Your task to perform on an android device: visit the assistant section in the google photos Image 0: 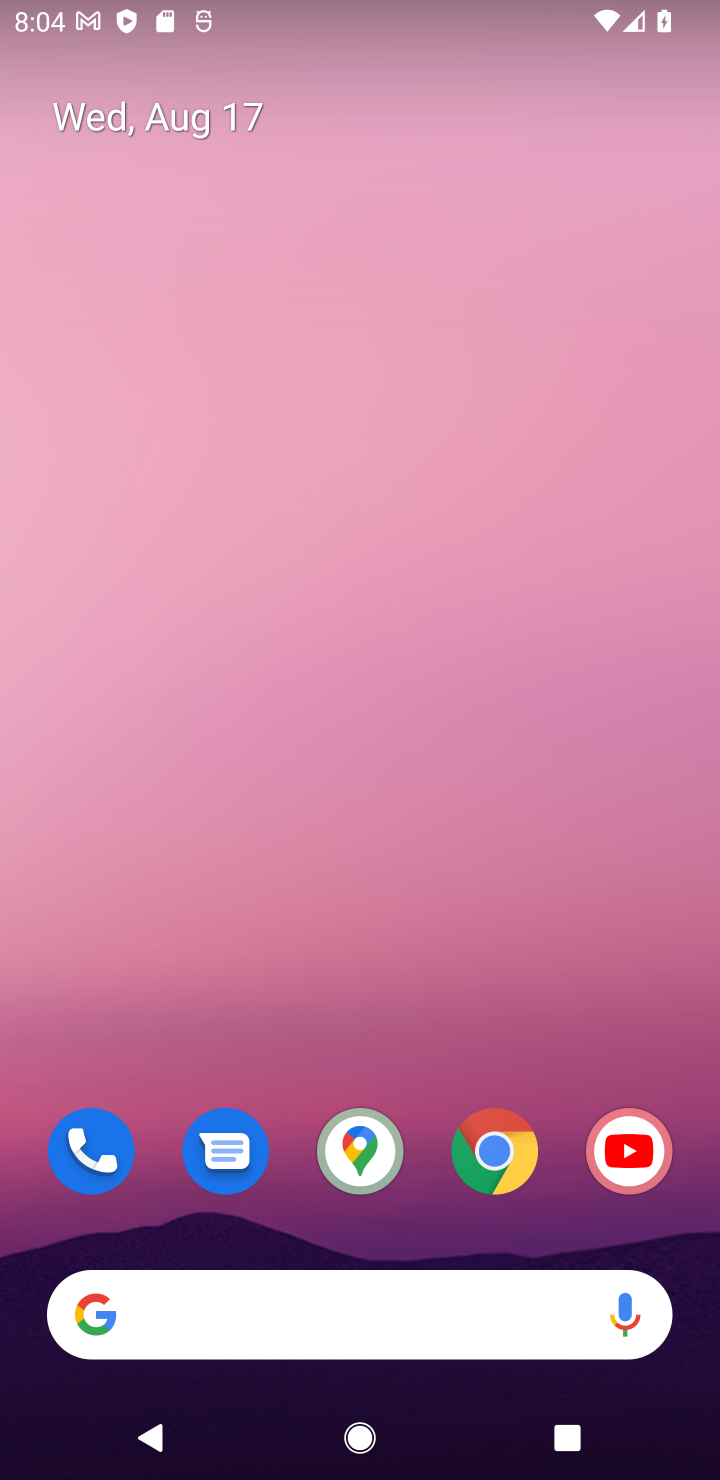
Step 0: drag from (506, 1041) to (550, 12)
Your task to perform on an android device: visit the assistant section in the google photos Image 1: 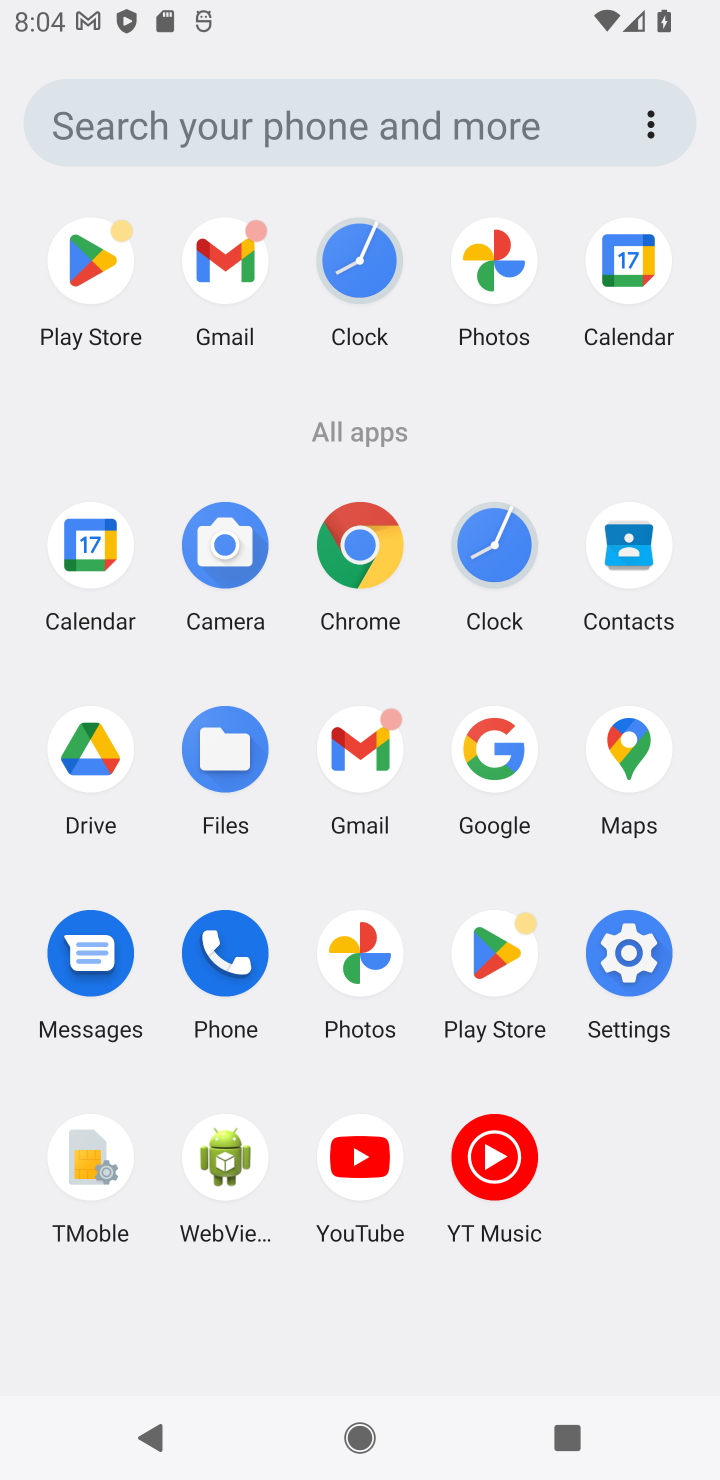
Step 1: drag from (426, 1009) to (572, 180)
Your task to perform on an android device: visit the assistant section in the google photos Image 2: 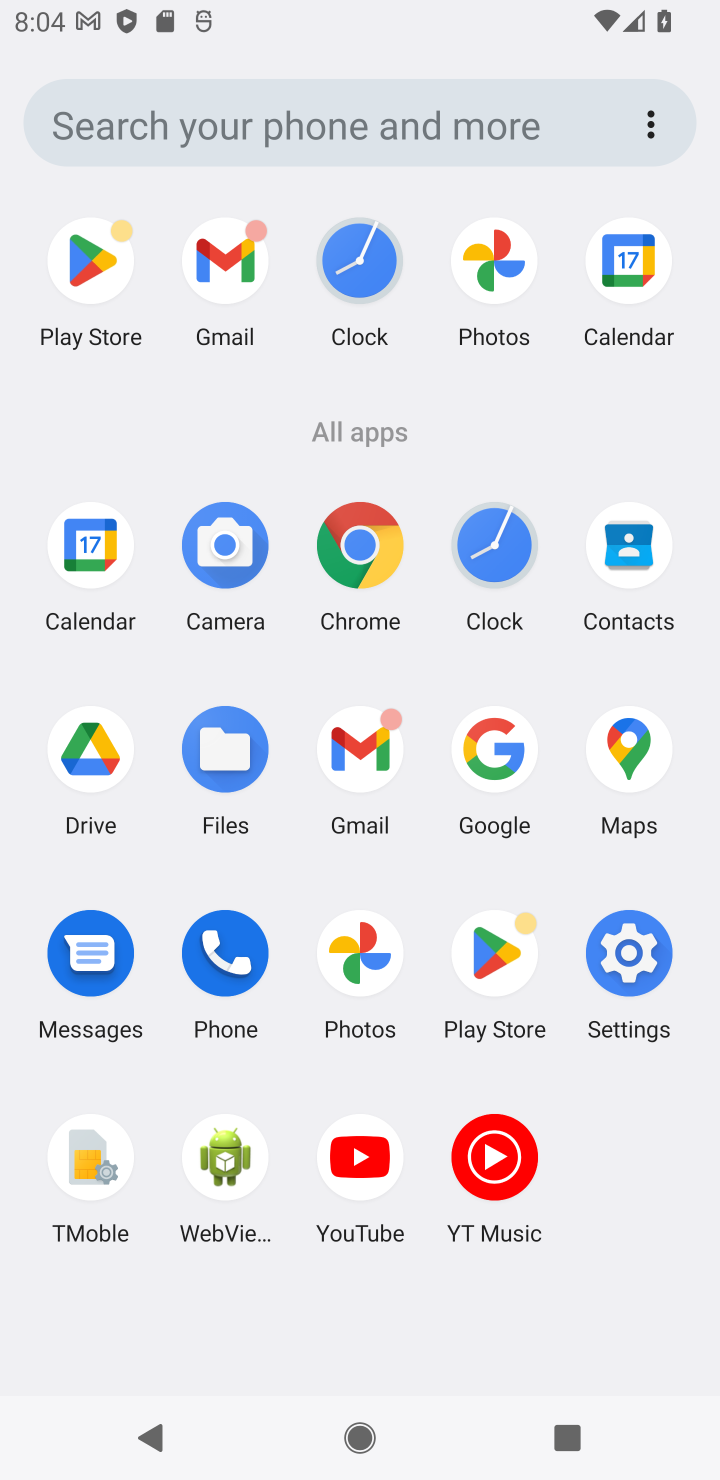
Step 2: click (354, 925)
Your task to perform on an android device: visit the assistant section in the google photos Image 3: 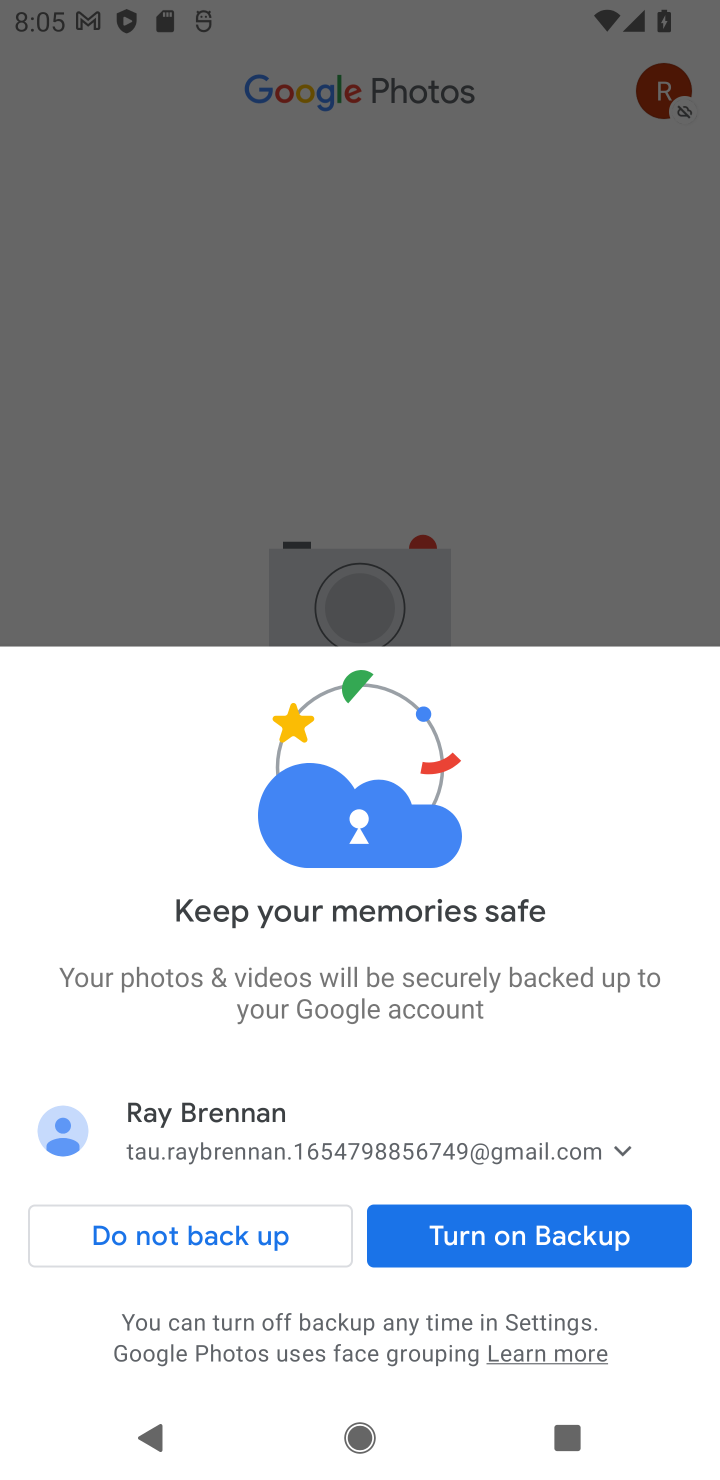
Step 3: click (524, 1241)
Your task to perform on an android device: visit the assistant section in the google photos Image 4: 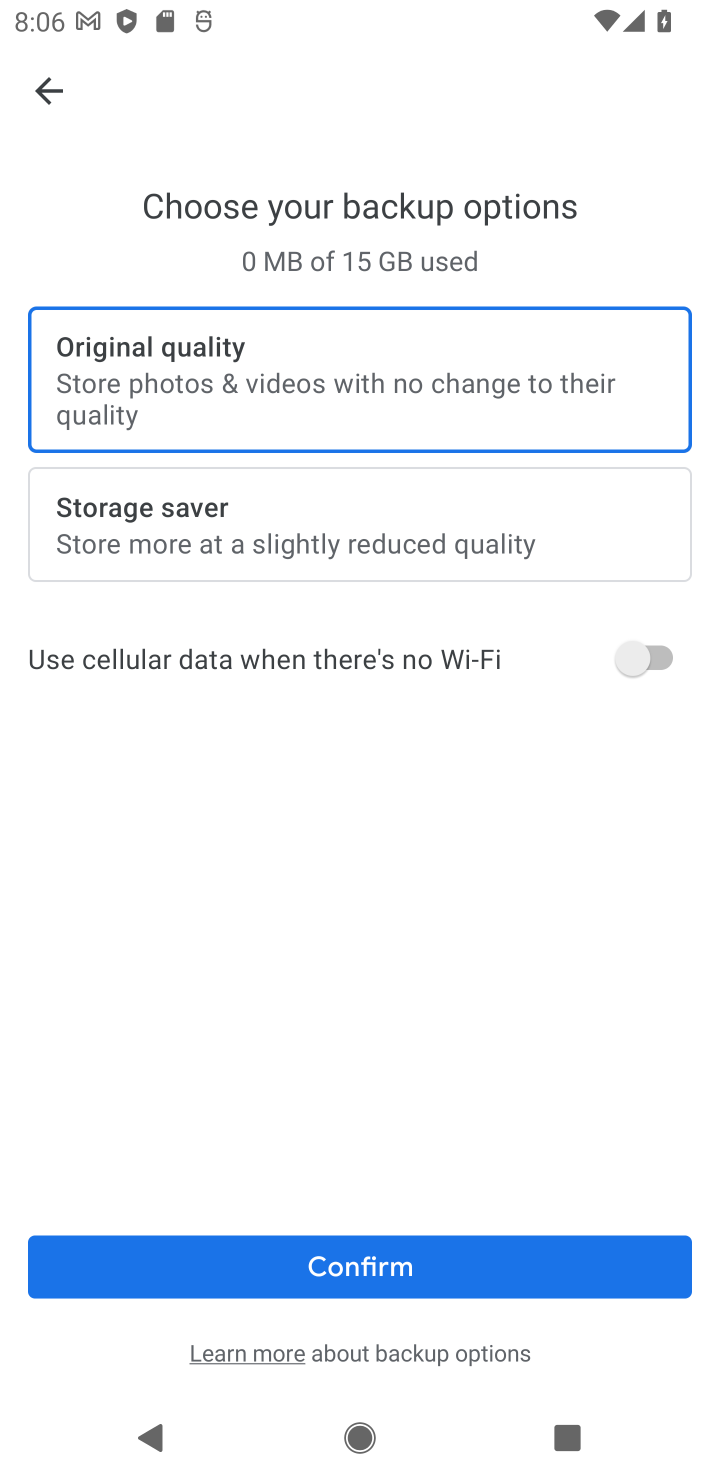
Step 4: click (575, 1248)
Your task to perform on an android device: visit the assistant section in the google photos Image 5: 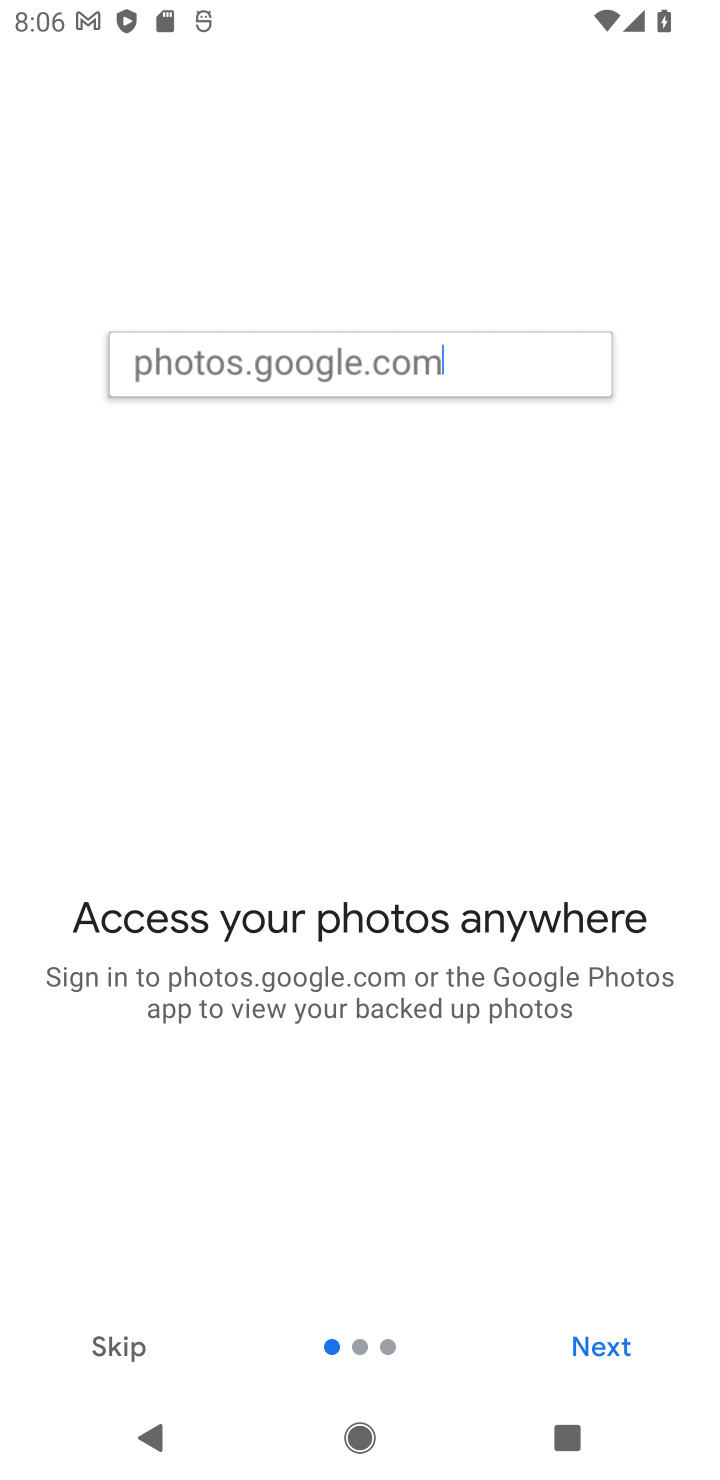
Step 5: click (595, 1348)
Your task to perform on an android device: visit the assistant section in the google photos Image 6: 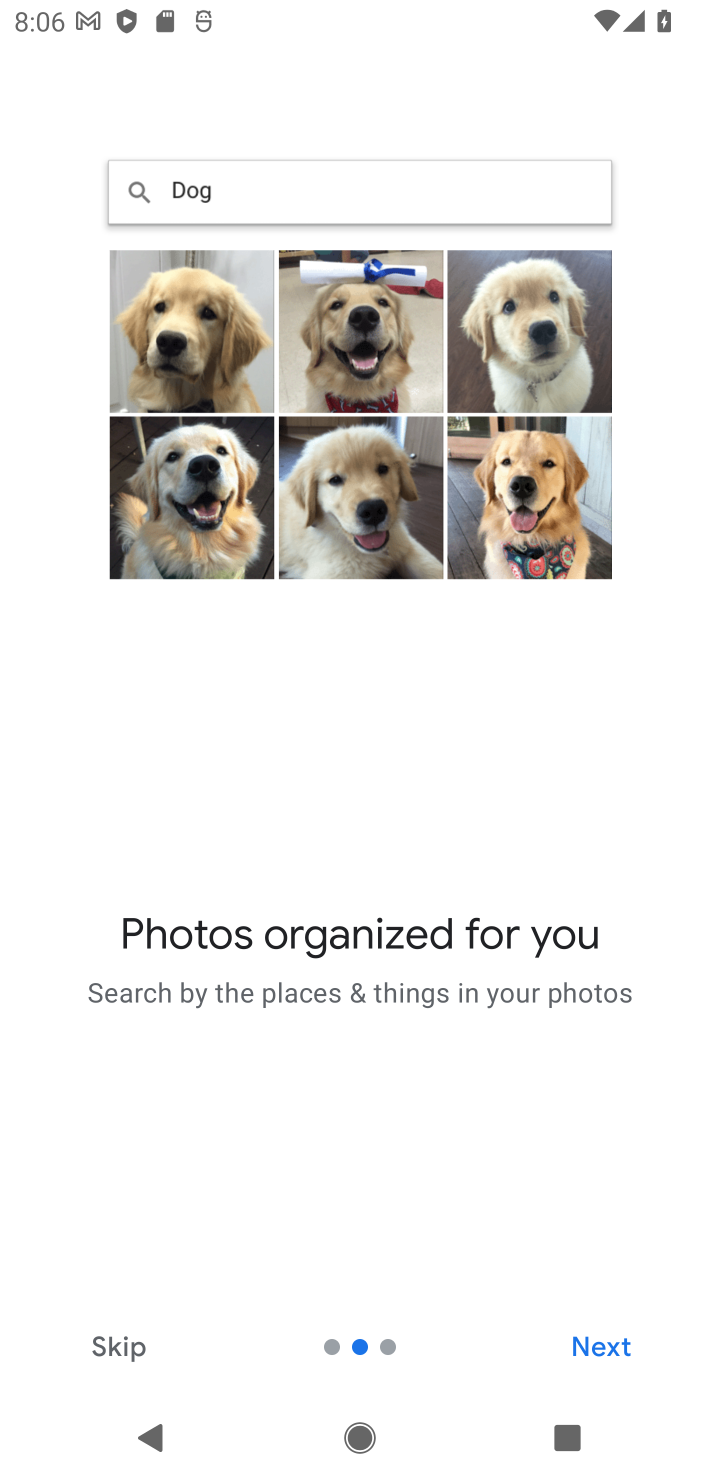
Step 6: click (618, 1334)
Your task to perform on an android device: visit the assistant section in the google photos Image 7: 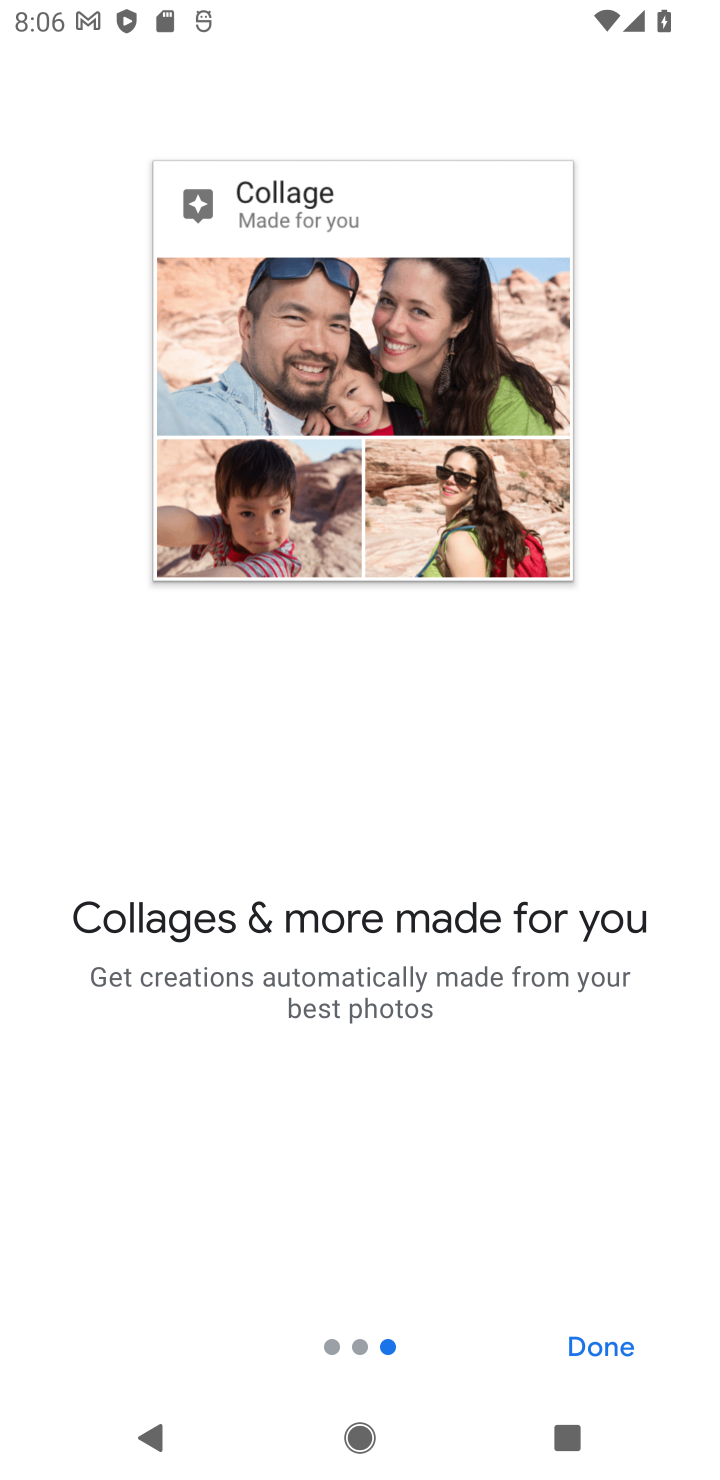
Step 7: click (613, 1349)
Your task to perform on an android device: visit the assistant section in the google photos Image 8: 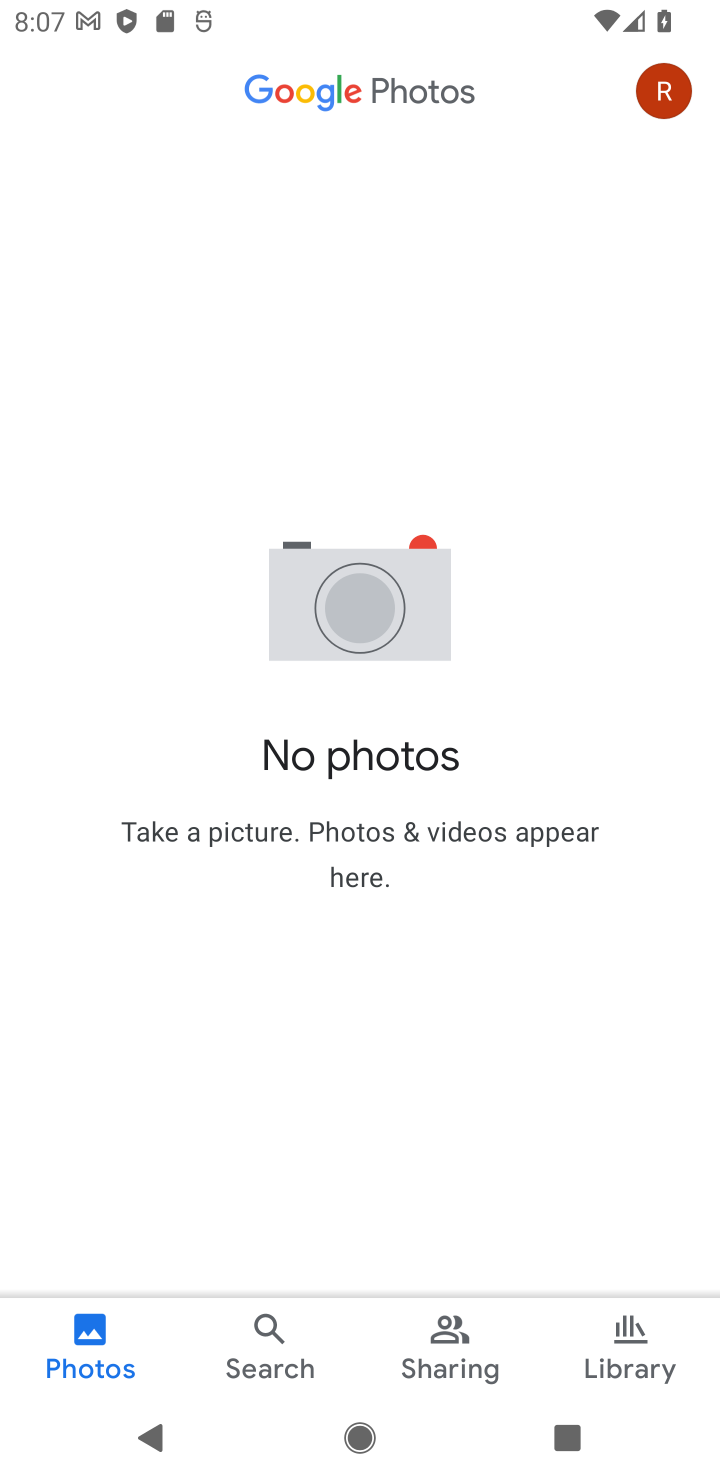
Step 8: task complete